Your task to perform on an android device: change the clock display to digital Image 0: 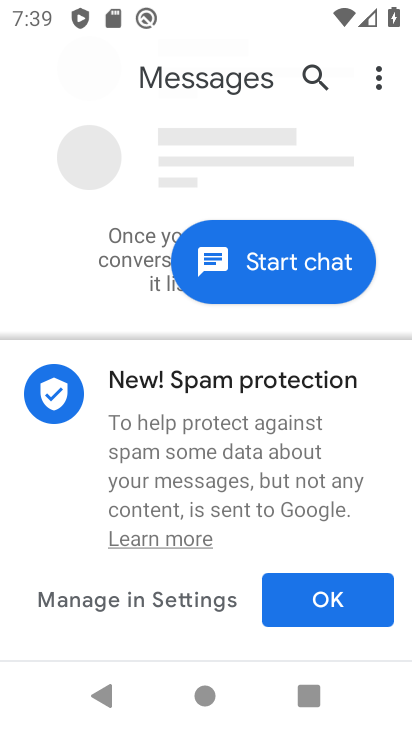
Step 0: press home button
Your task to perform on an android device: change the clock display to digital Image 1: 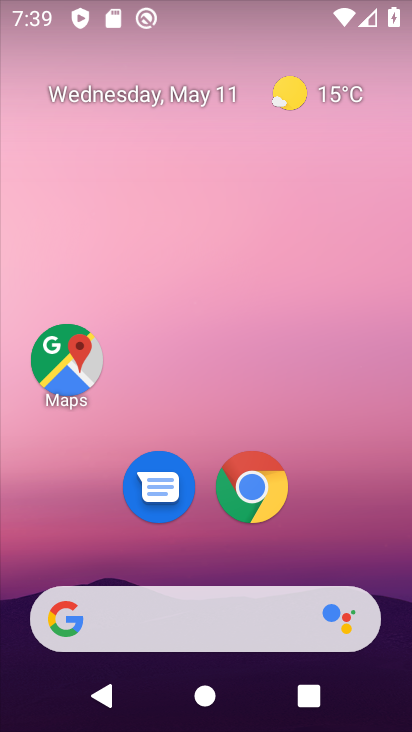
Step 1: drag from (265, 647) to (178, 158)
Your task to perform on an android device: change the clock display to digital Image 2: 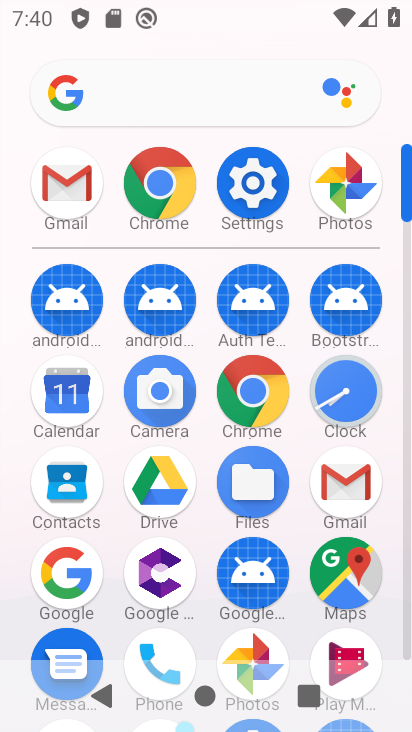
Step 2: click (343, 397)
Your task to perform on an android device: change the clock display to digital Image 3: 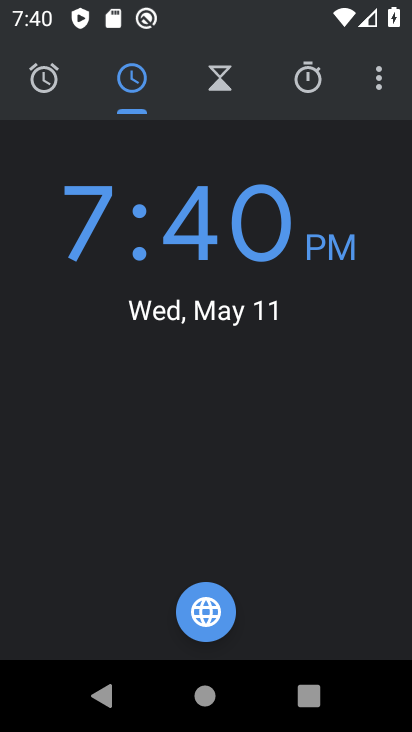
Step 3: click (367, 92)
Your task to perform on an android device: change the clock display to digital Image 4: 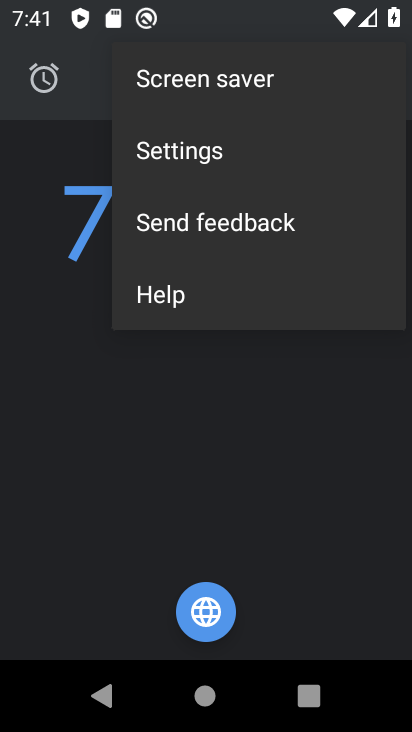
Step 4: click (232, 164)
Your task to perform on an android device: change the clock display to digital Image 5: 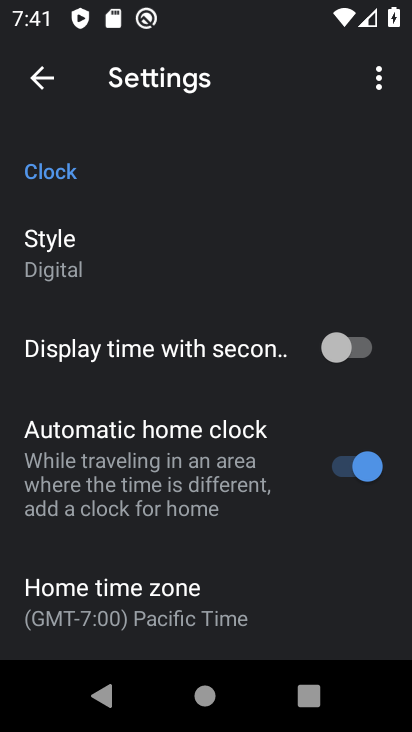
Step 5: click (113, 253)
Your task to perform on an android device: change the clock display to digital Image 6: 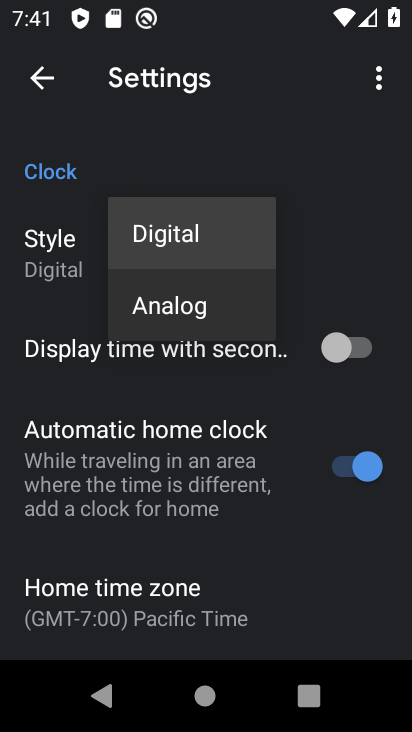
Step 6: click (200, 252)
Your task to perform on an android device: change the clock display to digital Image 7: 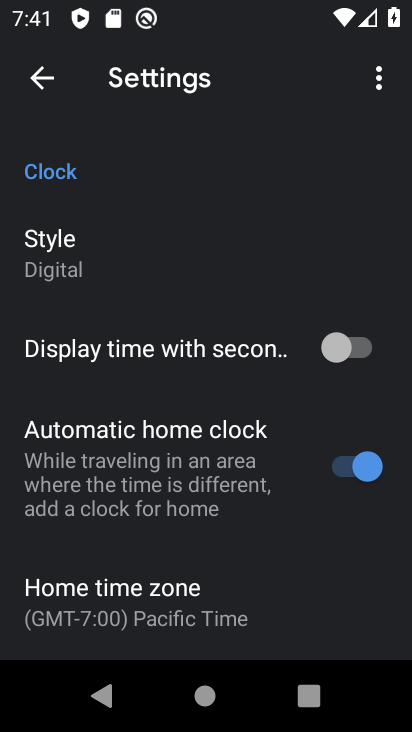
Step 7: task complete